Your task to perform on an android device: change the clock display to digital Image 0: 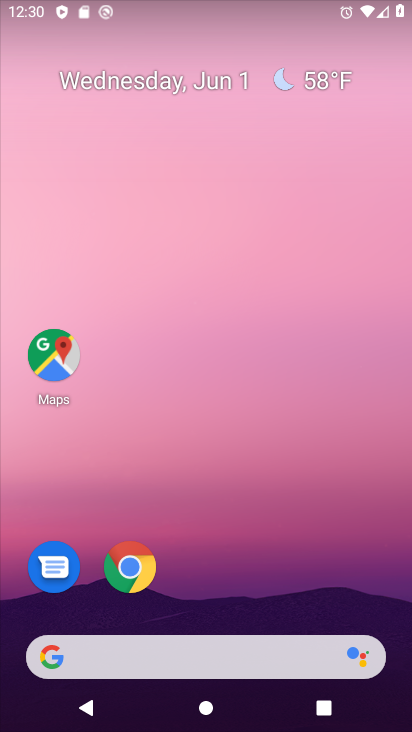
Step 0: drag from (183, 592) to (264, 33)
Your task to perform on an android device: change the clock display to digital Image 1: 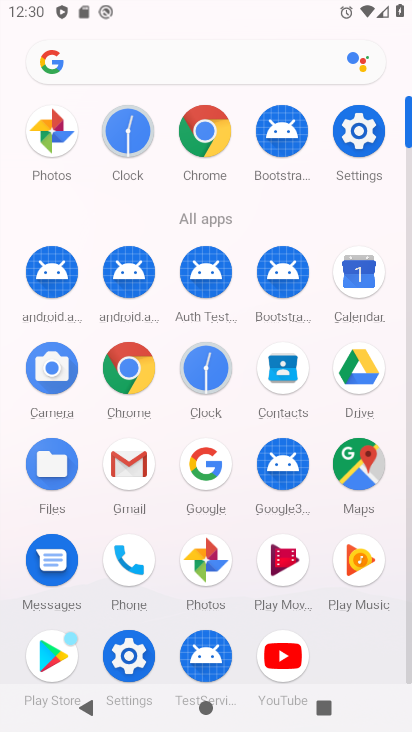
Step 1: click (225, 374)
Your task to perform on an android device: change the clock display to digital Image 2: 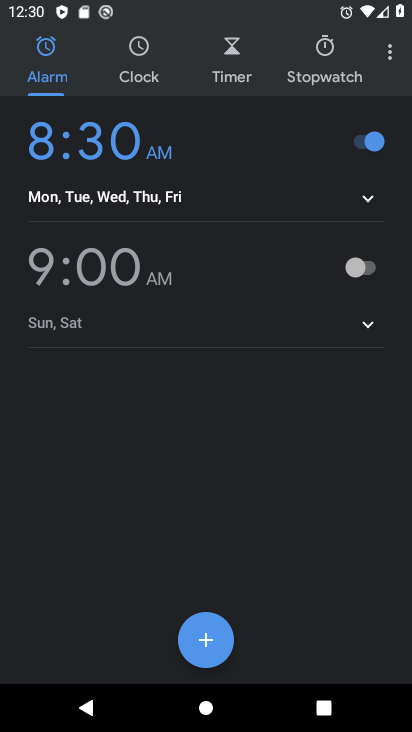
Step 2: click (376, 39)
Your task to perform on an android device: change the clock display to digital Image 3: 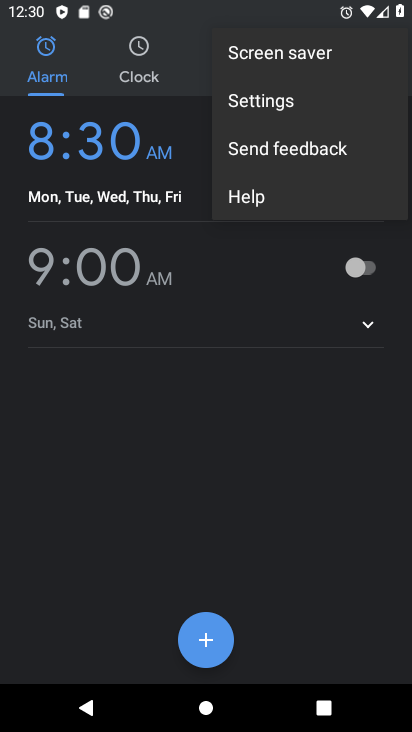
Step 3: click (327, 85)
Your task to perform on an android device: change the clock display to digital Image 4: 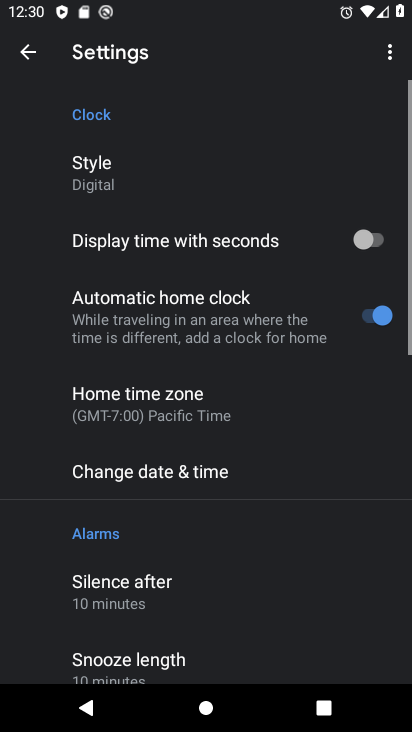
Step 4: click (160, 173)
Your task to perform on an android device: change the clock display to digital Image 5: 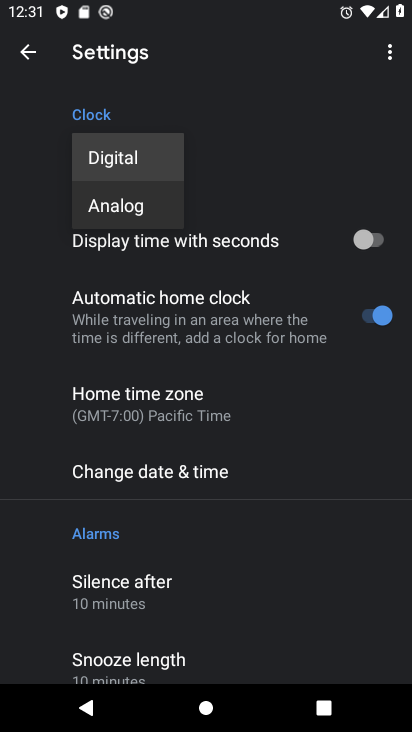
Step 5: task complete